Your task to perform on an android device: snooze an email in the gmail app Image 0: 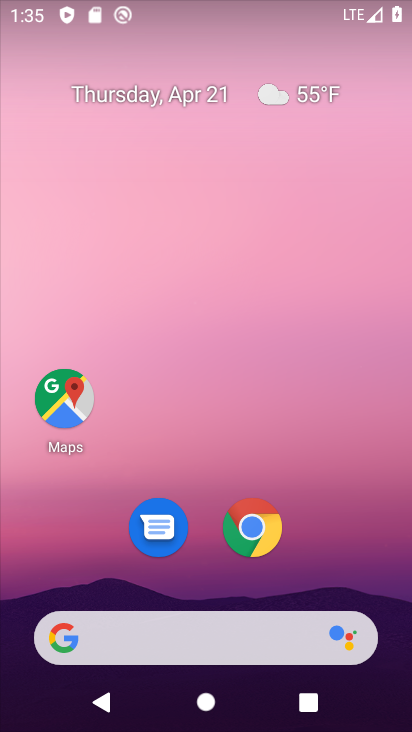
Step 0: drag from (332, 537) to (346, 110)
Your task to perform on an android device: snooze an email in the gmail app Image 1: 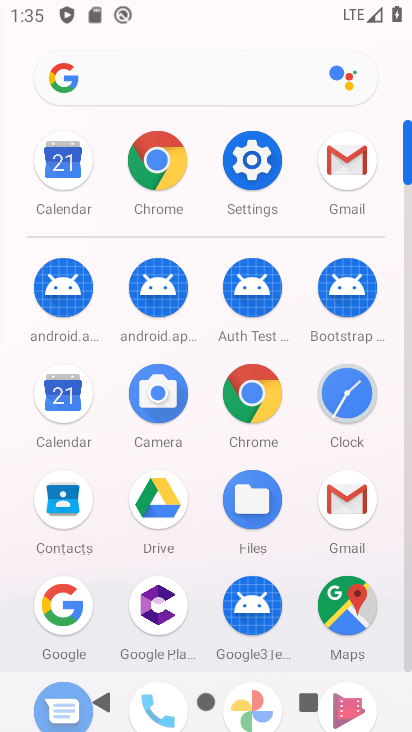
Step 1: click (328, 505)
Your task to perform on an android device: snooze an email in the gmail app Image 2: 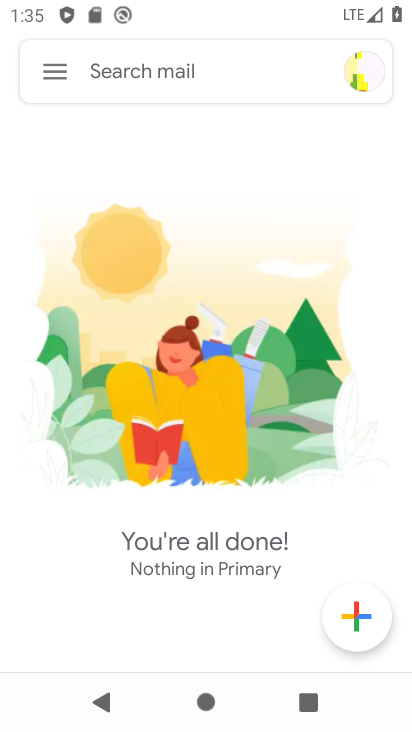
Step 2: click (68, 73)
Your task to perform on an android device: snooze an email in the gmail app Image 3: 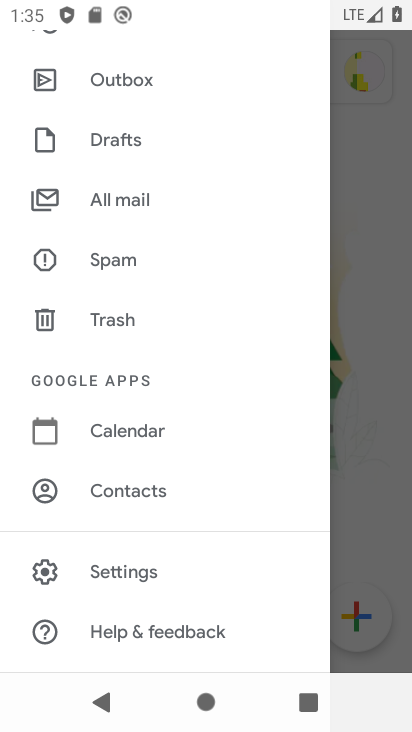
Step 3: drag from (259, 498) to (284, 227)
Your task to perform on an android device: snooze an email in the gmail app Image 4: 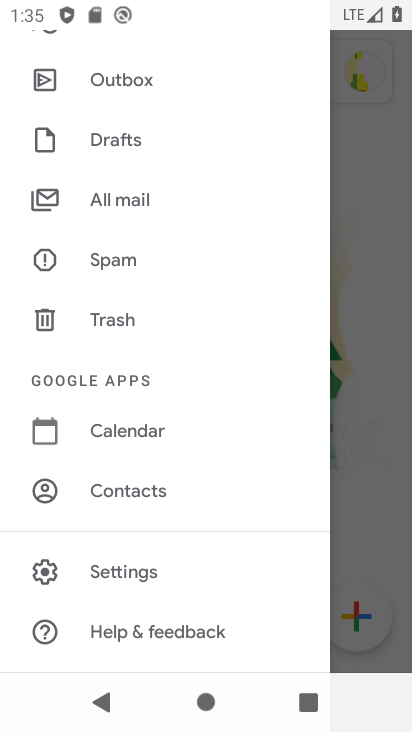
Step 4: drag from (276, 202) to (274, 386)
Your task to perform on an android device: snooze an email in the gmail app Image 5: 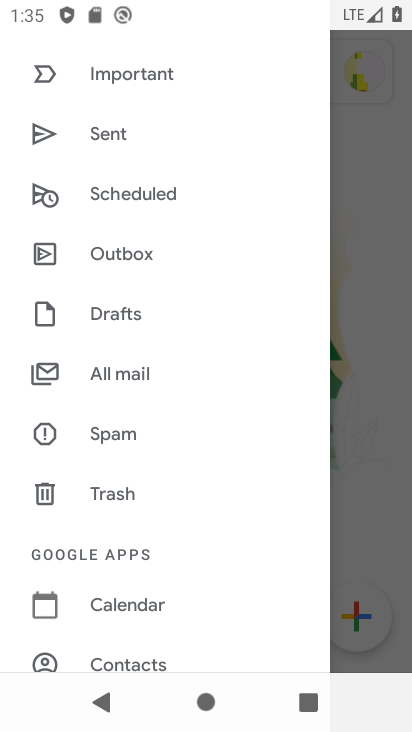
Step 5: drag from (278, 201) to (286, 356)
Your task to perform on an android device: snooze an email in the gmail app Image 6: 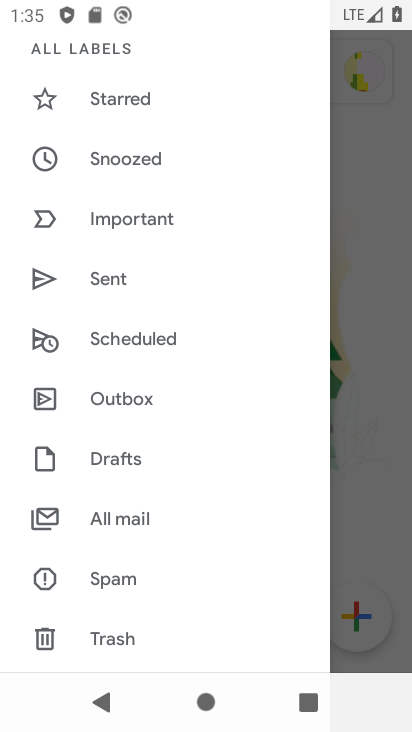
Step 6: drag from (277, 207) to (272, 375)
Your task to perform on an android device: snooze an email in the gmail app Image 7: 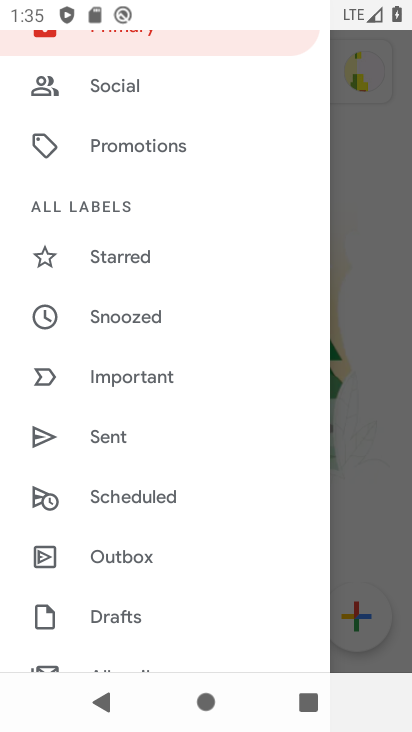
Step 7: drag from (262, 177) to (264, 354)
Your task to perform on an android device: snooze an email in the gmail app Image 8: 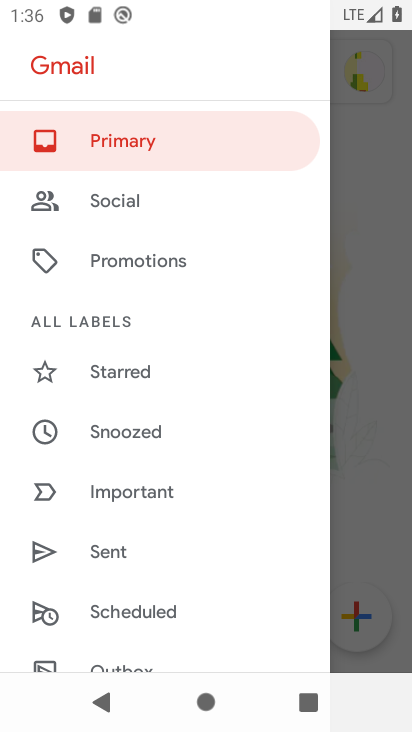
Step 8: click (164, 424)
Your task to perform on an android device: snooze an email in the gmail app Image 9: 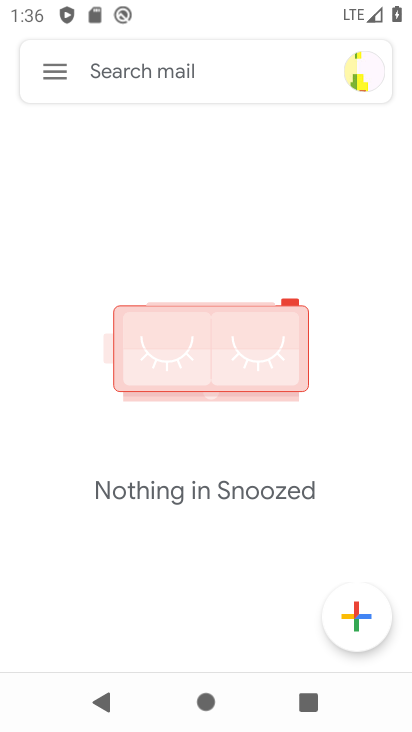
Step 9: task complete